Your task to perform on an android device: create a new album in the google photos Image 0: 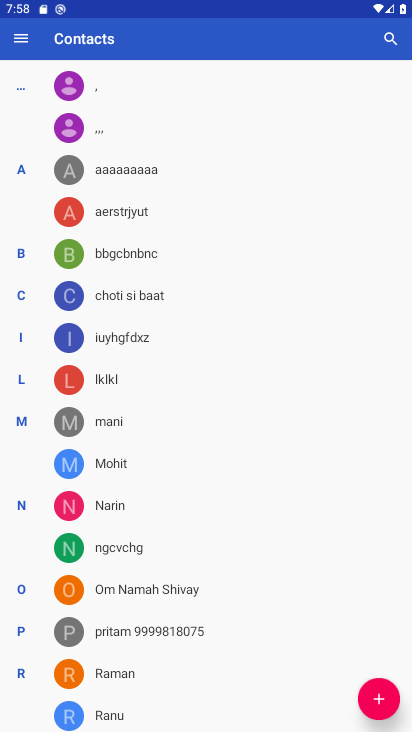
Step 0: press home button
Your task to perform on an android device: create a new album in the google photos Image 1: 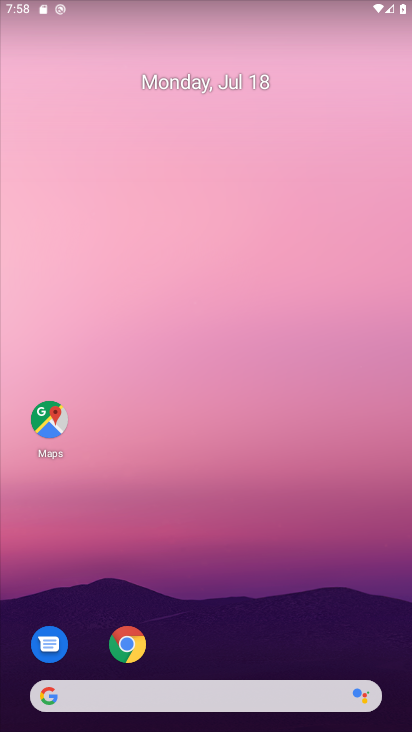
Step 1: drag from (242, 657) to (242, 271)
Your task to perform on an android device: create a new album in the google photos Image 2: 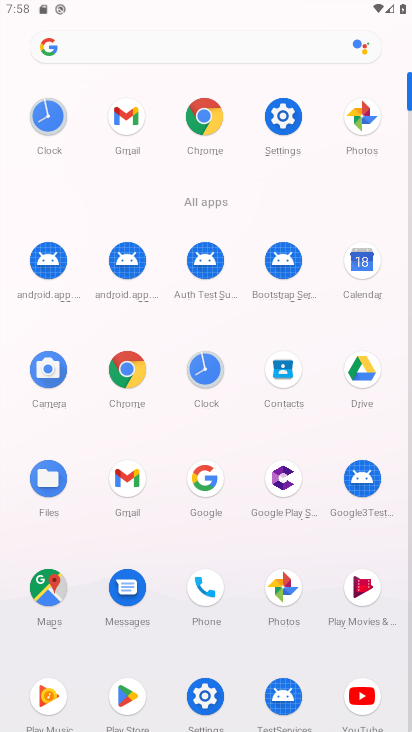
Step 2: click (359, 132)
Your task to perform on an android device: create a new album in the google photos Image 3: 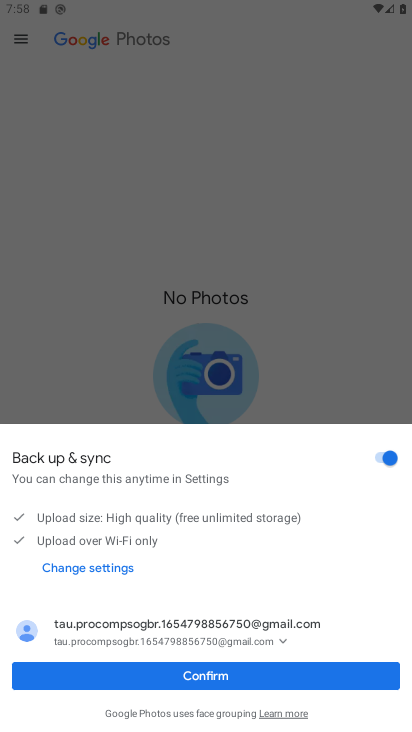
Step 3: click (176, 666)
Your task to perform on an android device: create a new album in the google photos Image 4: 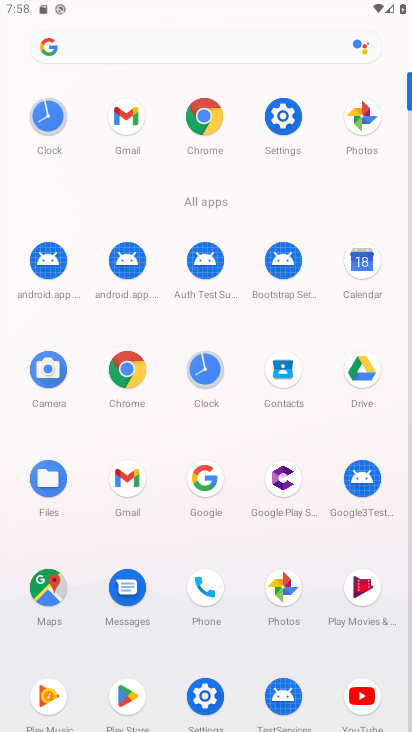
Step 4: click (366, 130)
Your task to perform on an android device: create a new album in the google photos Image 5: 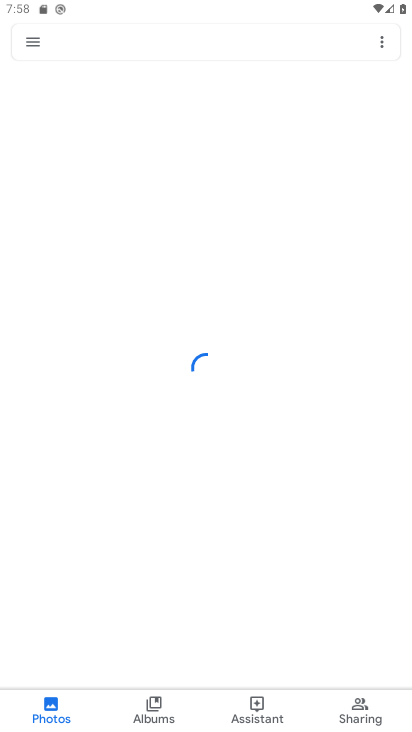
Step 5: task complete